Your task to perform on an android device: read, delete, or share a saved page in the chrome app Image 0: 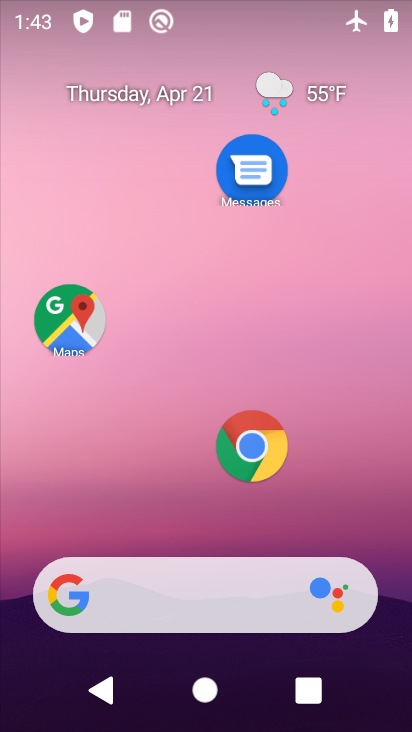
Step 0: click (256, 445)
Your task to perform on an android device: read, delete, or share a saved page in the chrome app Image 1: 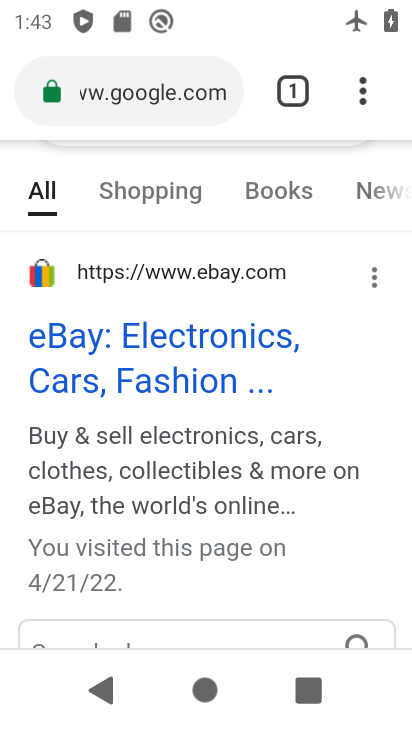
Step 1: click (362, 91)
Your task to perform on an android device: read, delete, or share a saved page in the chrome app Image 2: 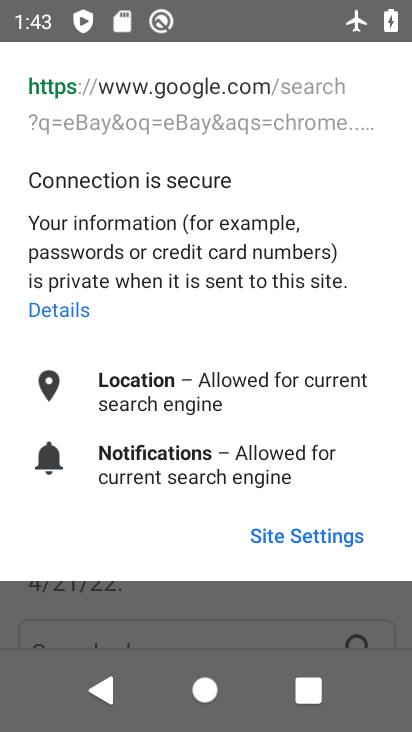
Step 2: click (321, 543)
Your task to perform on an android device: read, delete, or share a saved page in the chrome app Image 3: 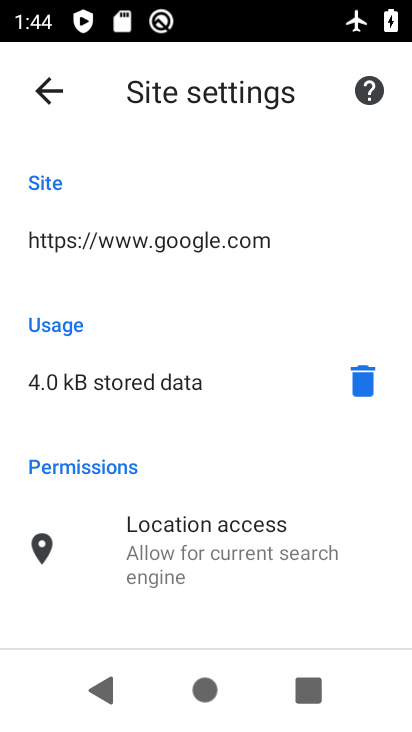
Step 3: drag from (219, 591) to (295, 298)
Your task to perform on an android device: read, delete, or share a saved page in the chrome app Image 4: 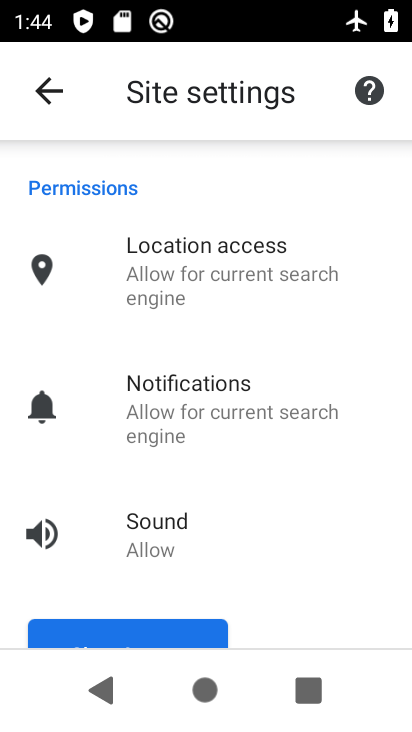
Step 4: press back button
Your task to perform on an android device: read, delete, or share a saved page in the chrome app Image 5: 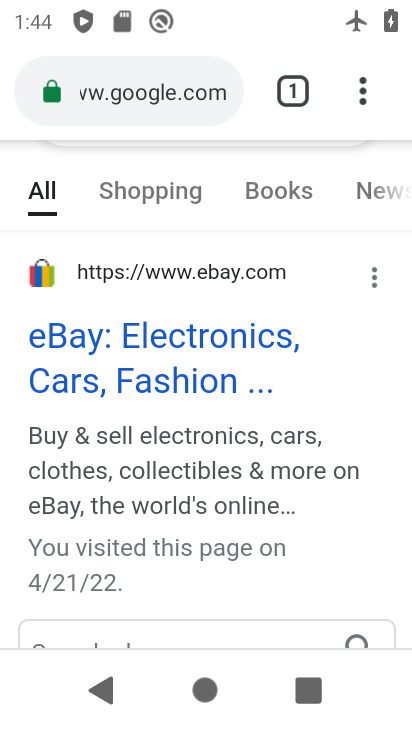
Step 5: click (362, 94)
Your task to perform on an android device: read, delete, or share a saved page in the chrome app Image 6: 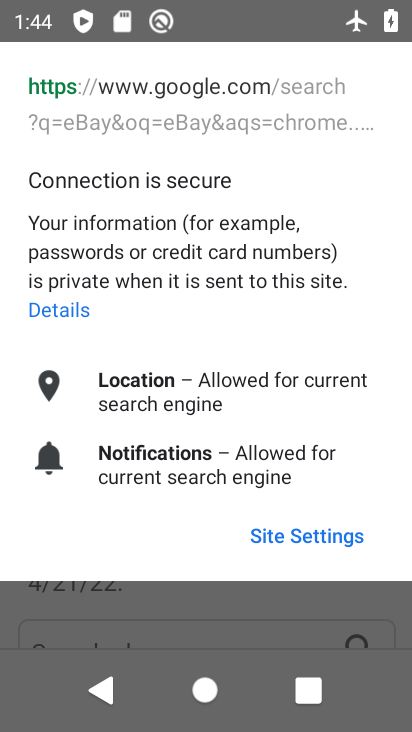
Step 6: press back button
Your task to perform on an android device: read, delete, or share a saved page in the chrome app Image 7: 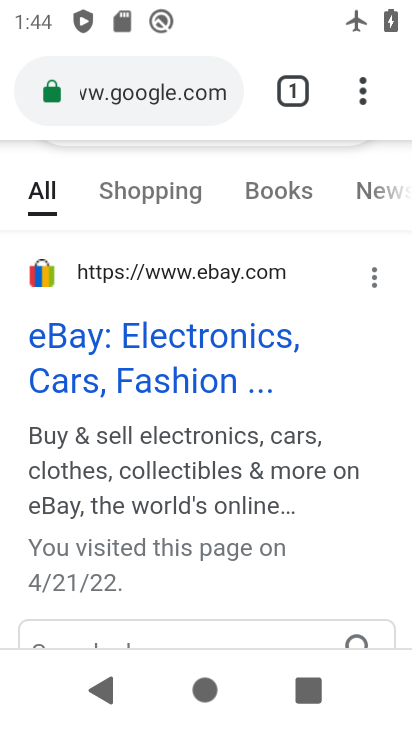
Step 7: click (378, 112)
Your task to perform on an android device: read, delete, or share a saved page in the chrome app Image 8: 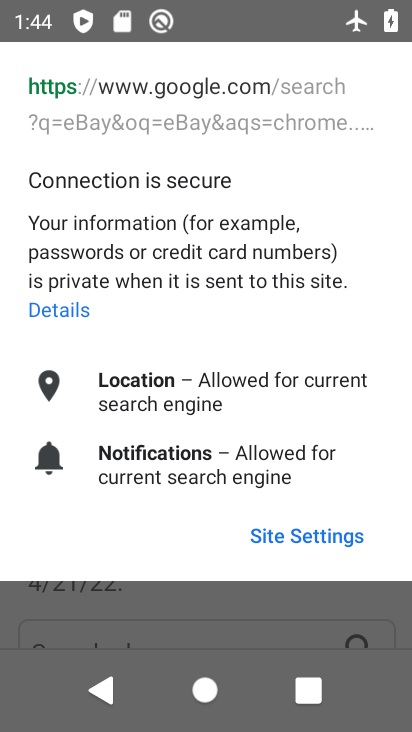
Step 8: press back button
Your task to perform on an android device: read, delete, or share a saved page in the chrome app Image 9: 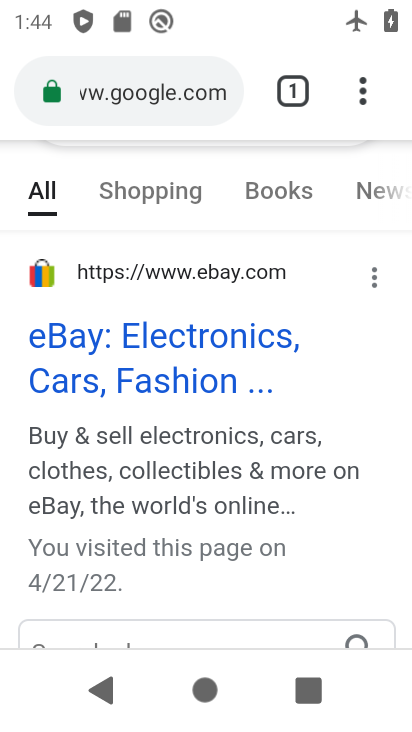
Step 9: click (367, 89)
Your task to perform on an android device: read, delete, or share a saved page in the chrome app Image 10: 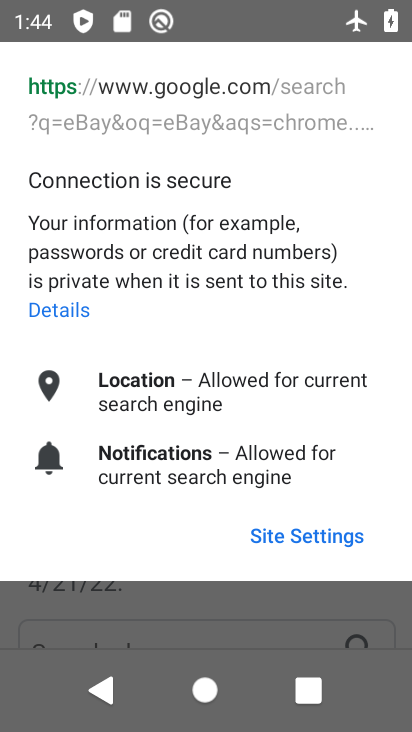
Step 10: press back button
Your task to perform on an android device: read, delete, or share a saved page in the chrome app Image 11: 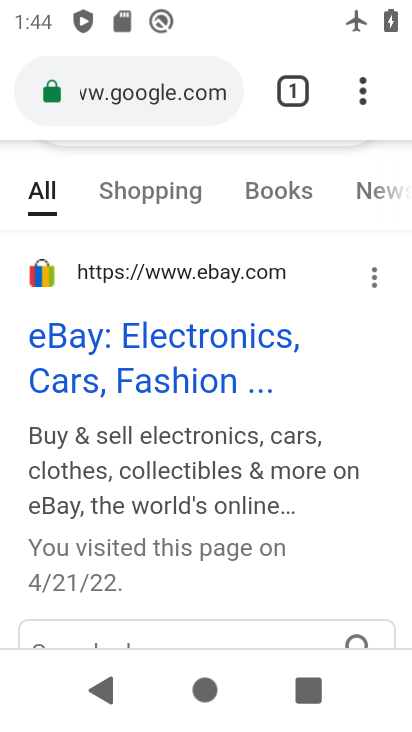
Step 11: click (361, 94)
Your task to perform on an android device: read, delete, or share a saved page in the chrome app Image 12: 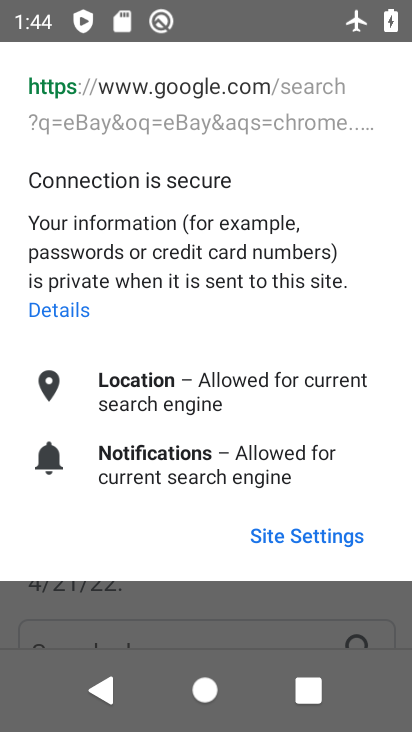
Step 12: click (297, 530)
Your task to perform on an android device: read, delete, or share a saved page in the chrome app Image 13: 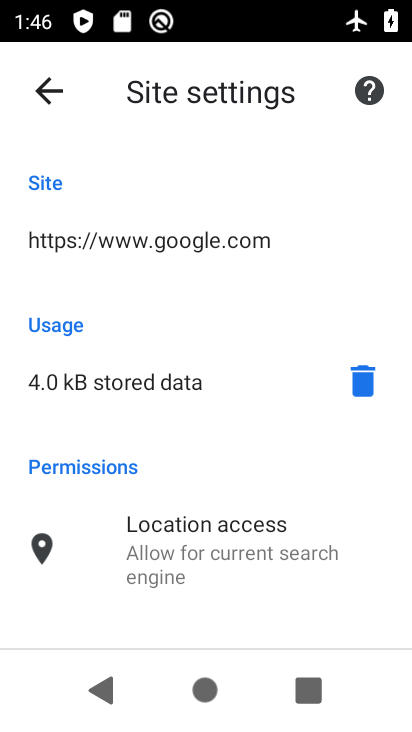
Step 13: press back button
Your task to perform on an android device: read, delete, or share a saved page in the chrome app Image 14: 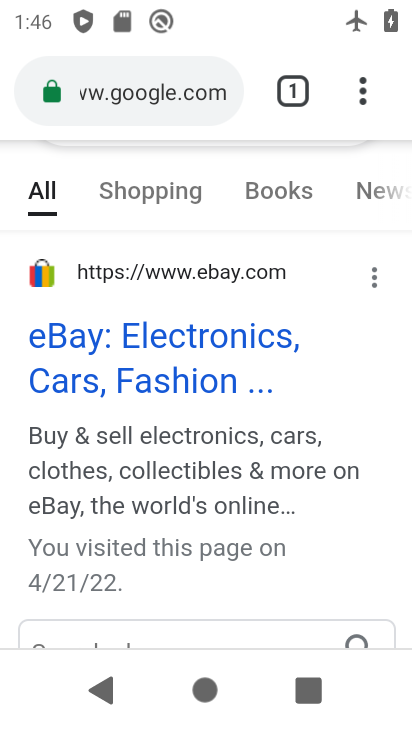
Step 14: drag from (364, 93) to (138, 155)
Your task to perform on an android device: read, delete, or share a saved page in the chrome app Image 15: 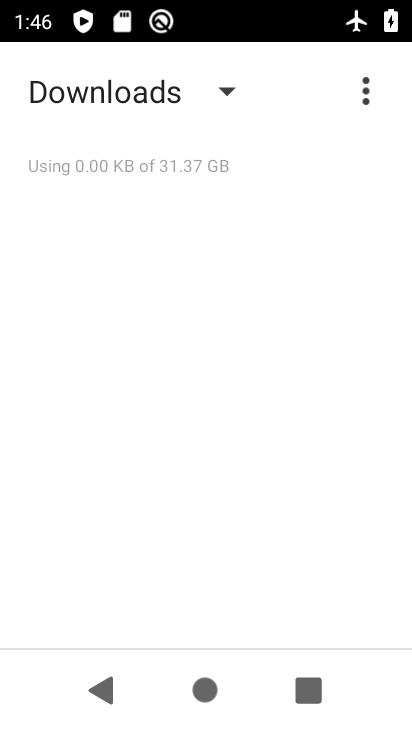
Step 15: click (220, 95)
Your task to perform on an android device: read, delete, or share a saved page in the chrome app Image 16: 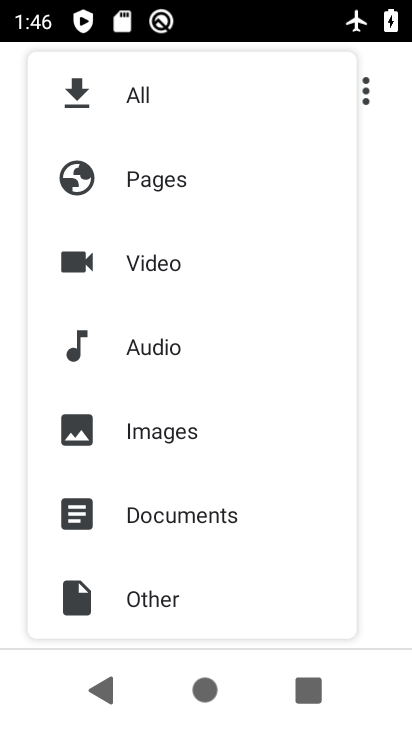
Step 16: click (150, 189)
Your task to perform on an android device: read, delete, or share a saved page in the chrome app Image 17: 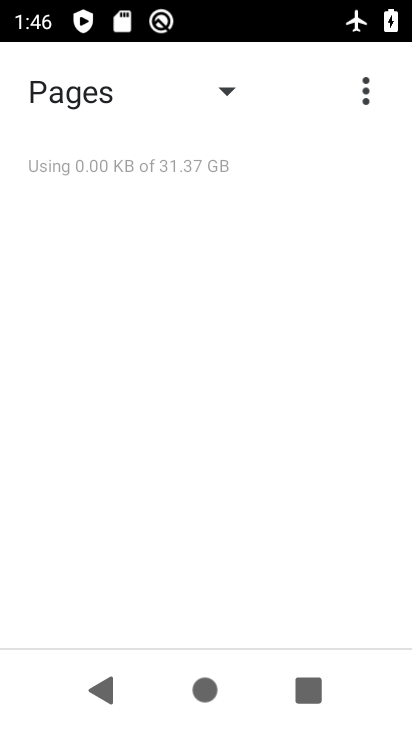
Step 17: task complete